Your task to perform on an android device: Open wifi settings Image 0: 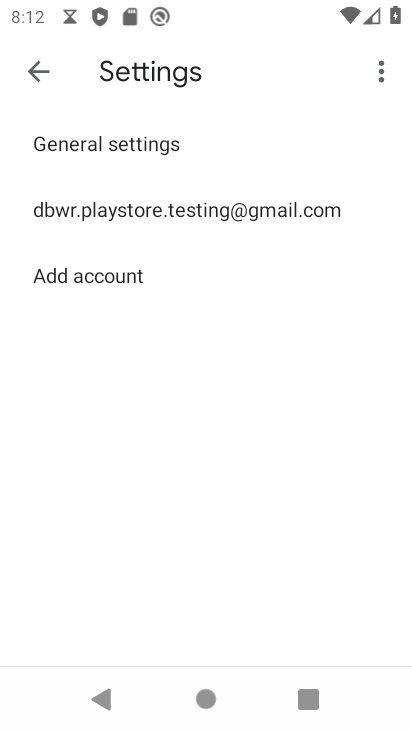
Step 0: press back button
Your task to perform on an android device: Open wifi settings Image 1: 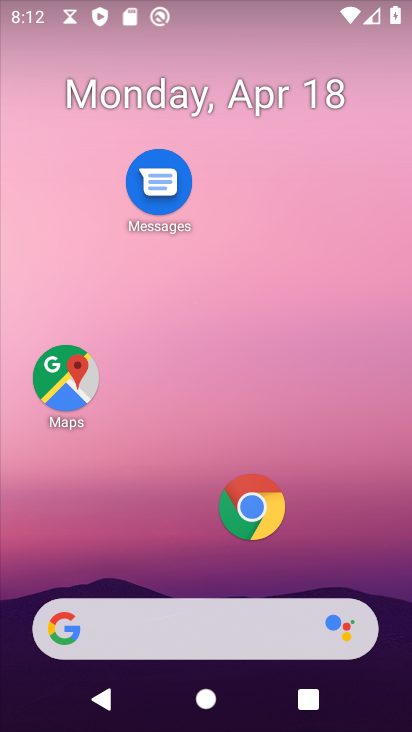
Step 1: drag from (182, 596) to (224, 260)
Your task to perform on an android device: Open wifi settings Image 2: 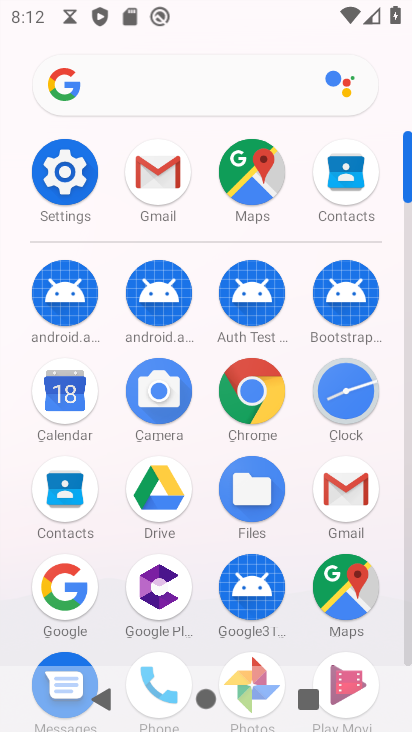
Step 2: click (63, 172)
Your task to perform on an android device: Open wifi settings Image 3: 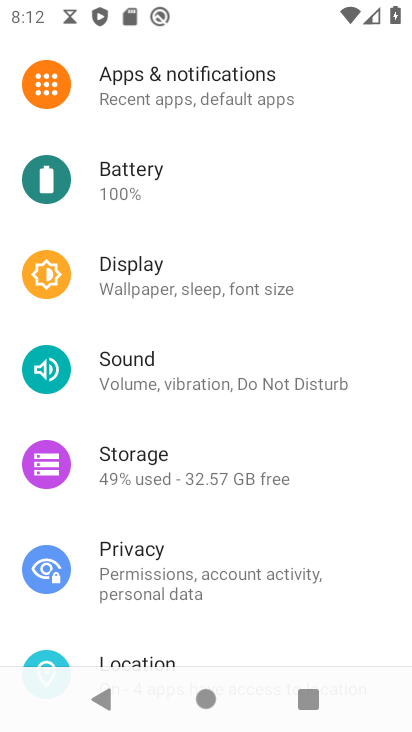
Step 3: drag from (201, 70) to (141, 445)
Your task to perform on an android device: Open wifi settings Image 4: 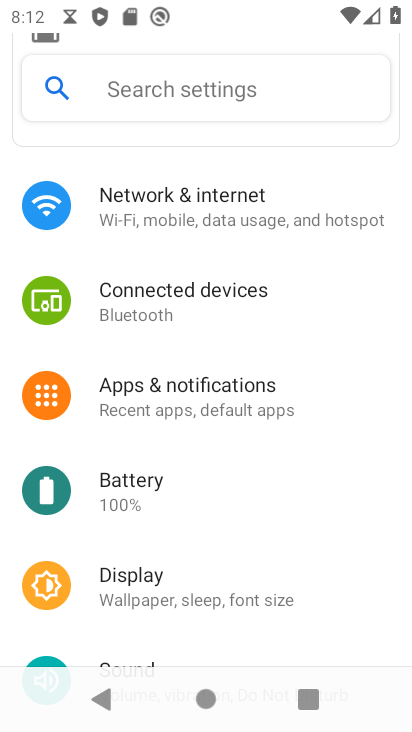
Step 4: click (210, 206)
Your task to perform on an android device: Open wifi settings Image 5: 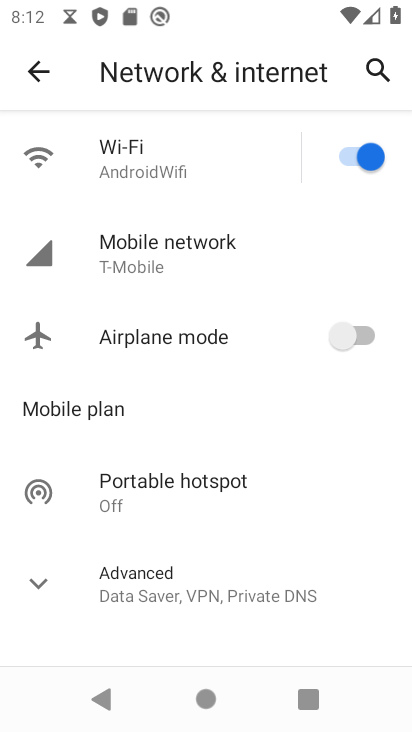
Step 5: click (146, 154)
Your task to perform on an android device: Open wifi settings Image 6: 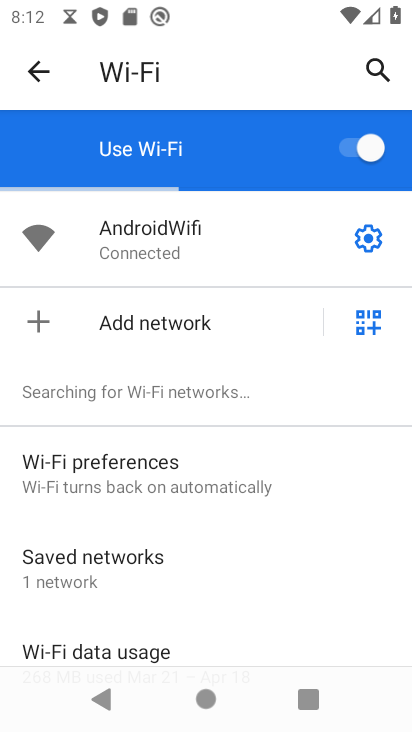
Step 6: click (361, 239)
Your task to perform on an android device: Open wifi settings Image 7: 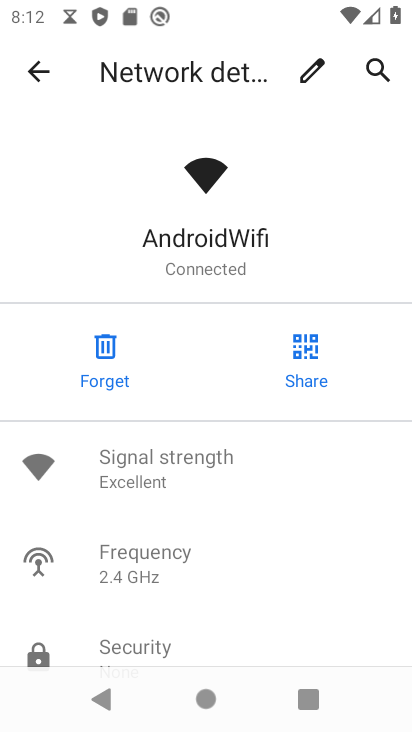
Step 7: drag from (256, 621) to (268, 309)
Your task to perform on an android device: Open wifi settings Image 8: 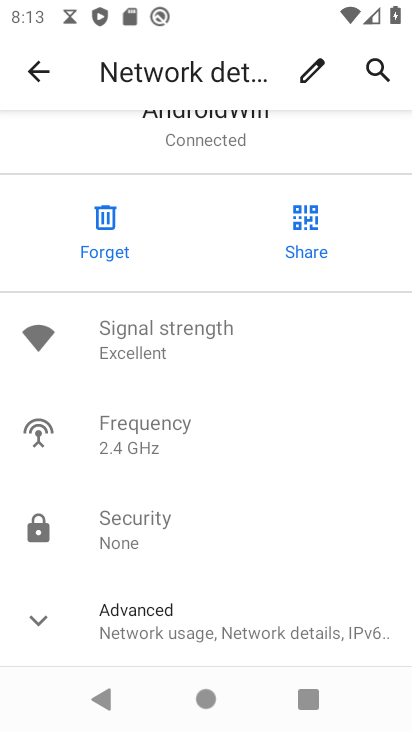
Step 8: click (184, 623)
Your task to perform on an android device: Open wifi settings Image 9: 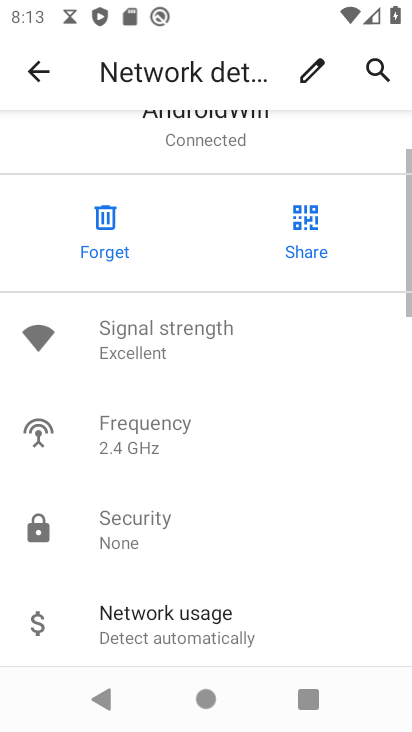
Step 9: task complete